Your task to perform on an android device: choose inbox layout in the gmail app Image 0: 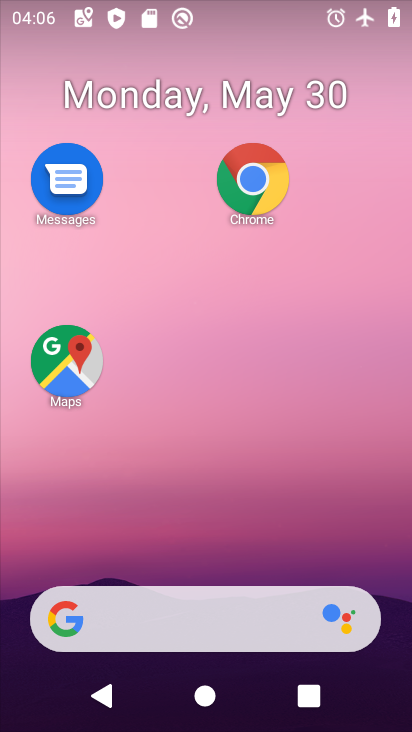
Step 0: click (406, 250)
Your task to perform on an android device: choose inbox layout in the gmail app Image 1: 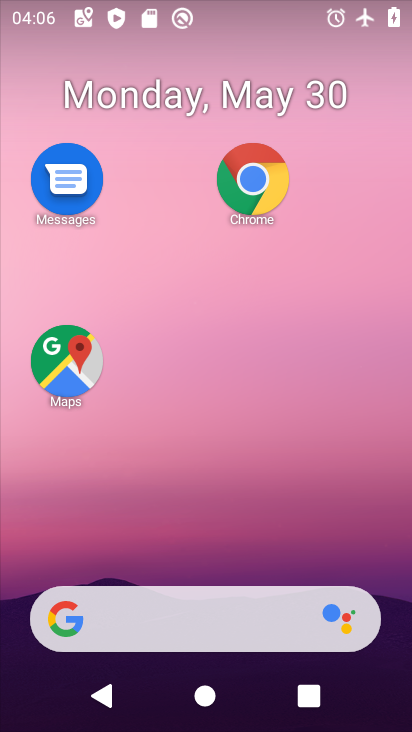
Step 1: drag from (216, 515) to (156, 12)
Your task to perform on an android device: choose inbox layout in the gmail app Image 2: 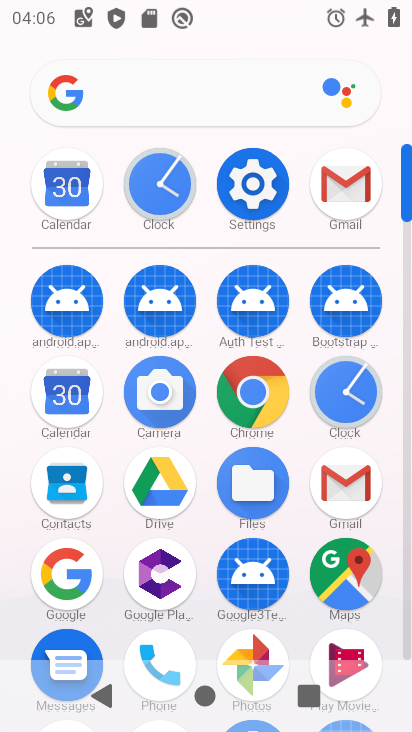
Step 2: click (333, 177)
Your task to perform on an android device: choose inbox layout in the gmail app Image 3: 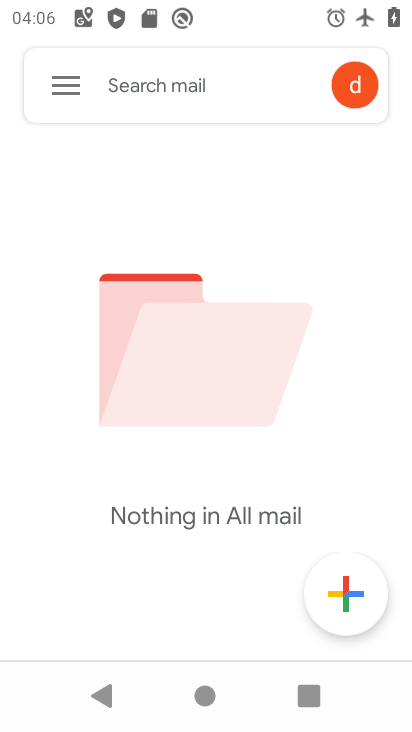
Step 3: click (66, 86)
Your task to perform on an android device: choose inbox layout in the gmail app Image 4: 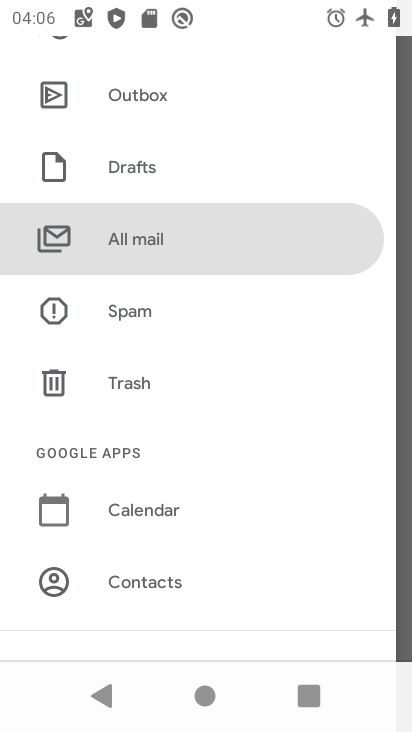
Step 4: drag from (130, 547) to (147, 88)
Your task to perform on an android device: choose inbox layout in the gmail app Image 5: 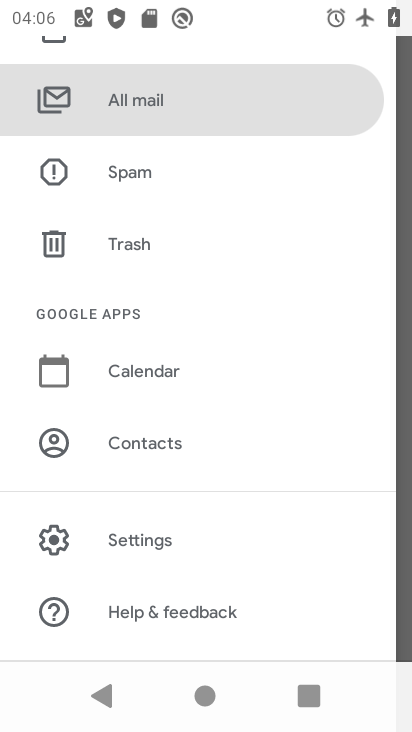
Step 5: click (163, 548)
Your task to perform on an android device: choose inbox layout in the gmail app Image 6: 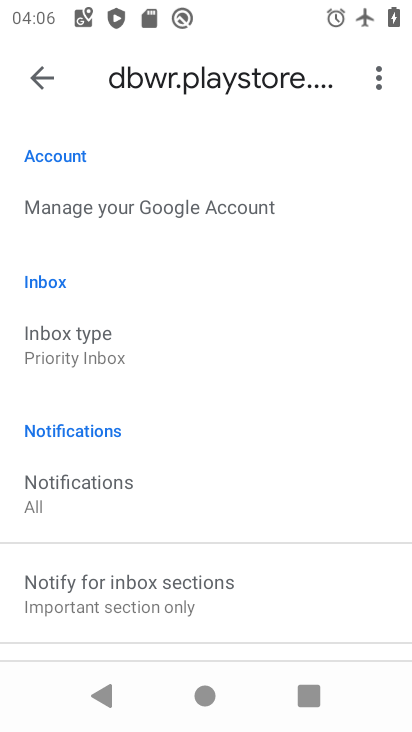
Step 6: drag from (137, 519) to (130, 409)
Your task to perform on an android device: choose inbox layout in the gmail app Image 7: 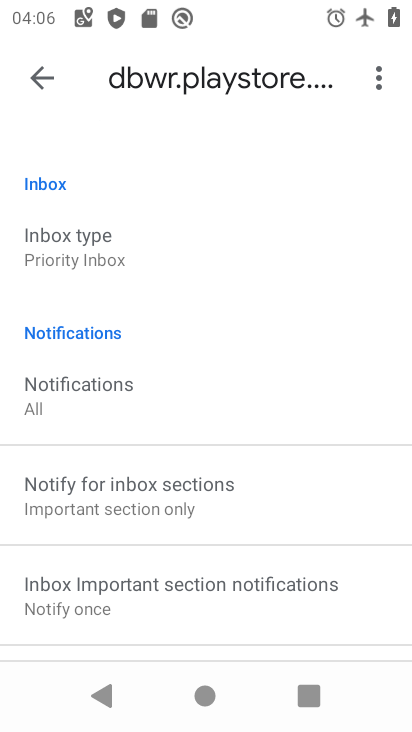
Step 7: click (67, 294)
Your task to perform on an android device: choose inbox layout in the gmail app Image 8: 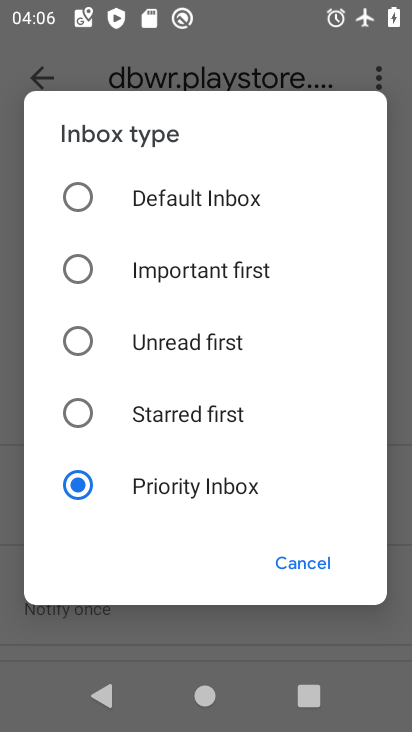
Step 8: click (69, 209)
Your task to perform on an android device: choose inbox layout in the gmail app Image 9: 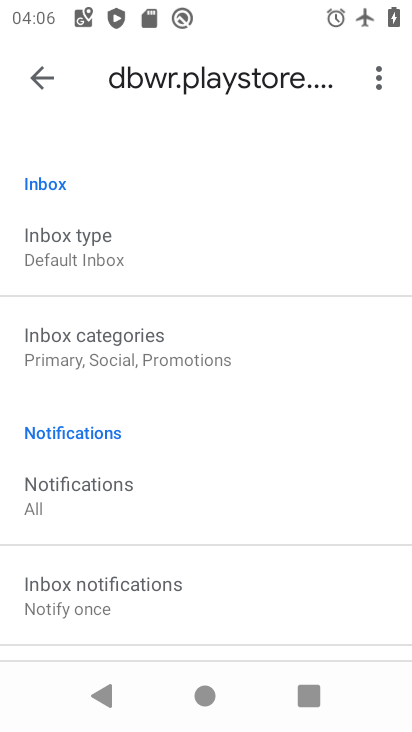
Step 9: task complete